Your task to perform on an android device: install app "HBO Max: Stream TV & Movies" Image 0: 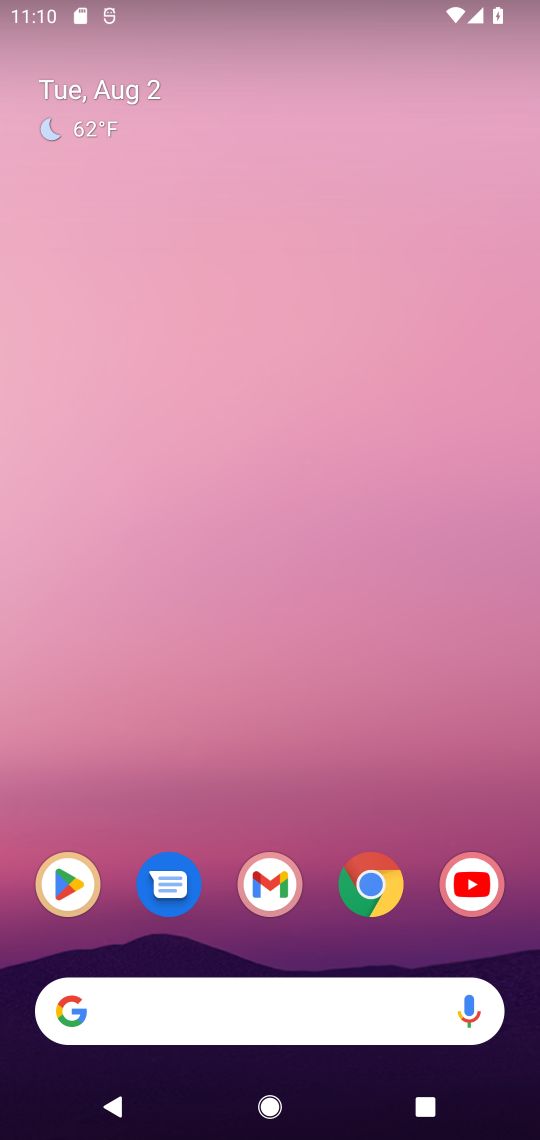
Step 0: click (59, 884)
Your task to perform on an android device: install app "HBO Max: Stream TV & Movies" Image 1: 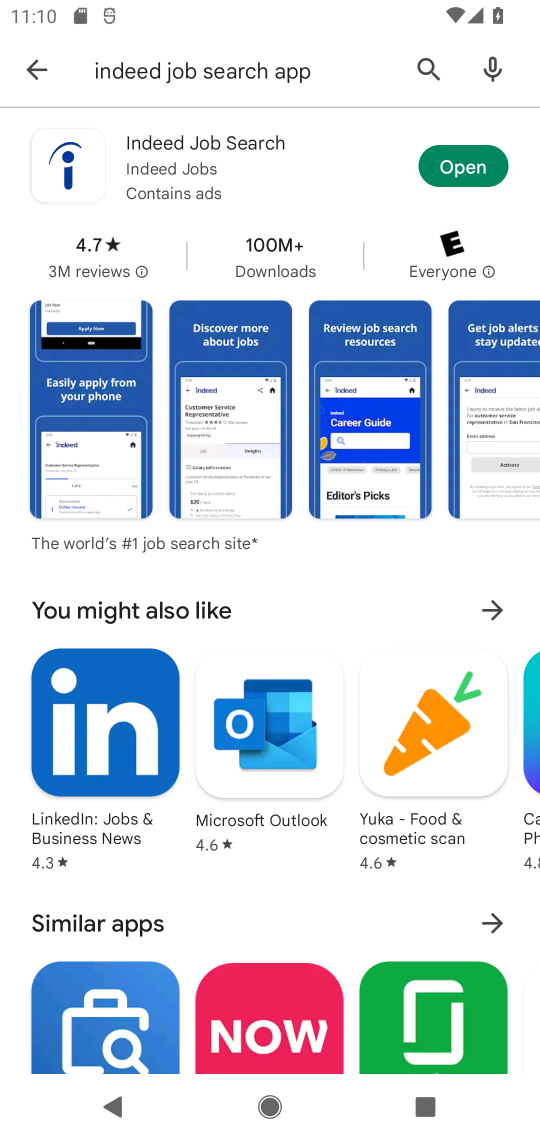
Step 1: click (158, 77)
Your task to perform on an android device: install app "HBO Max: Stream TV & Movies" Image 2: 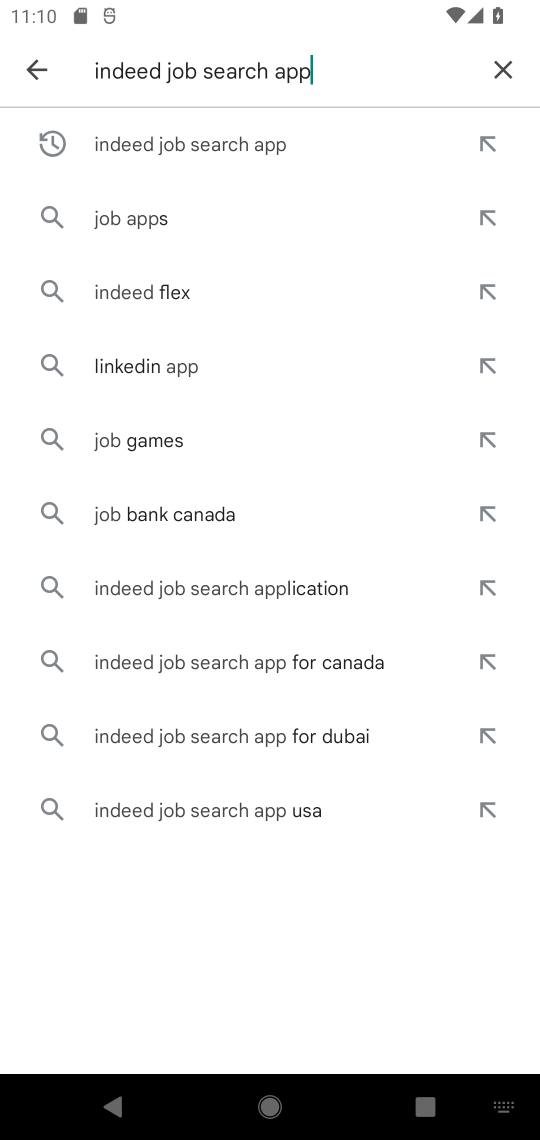
Step 2: click (501, 67)
Your task to perform on an android device: install app "HBO Max: Stream TV & Movies" Image 3: 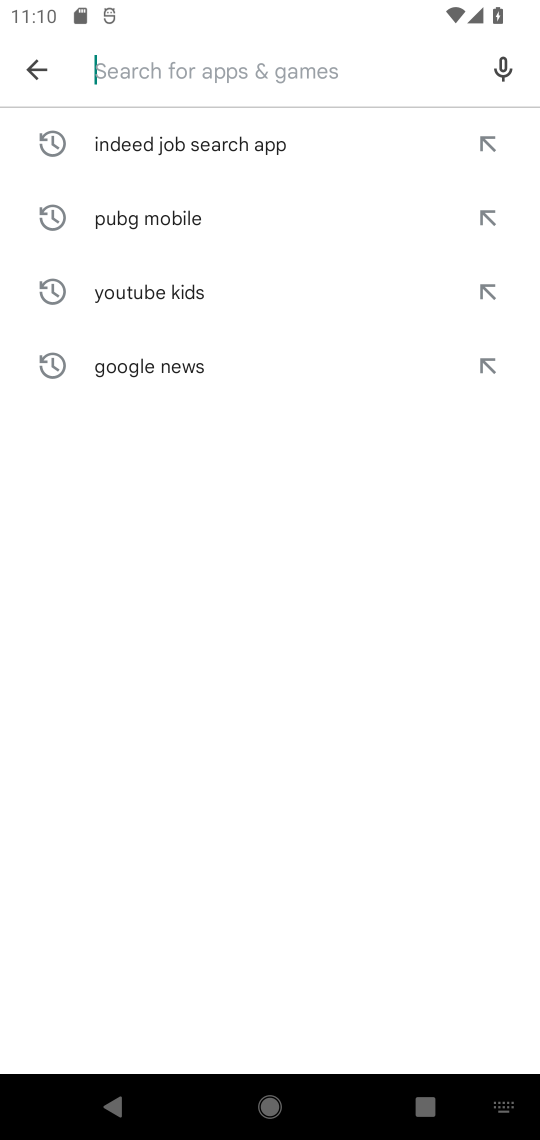
Step 3: type "HBO max"
Your task to perform on an android device: install app "HBO Max: Stream TV & Movies" Image 4: 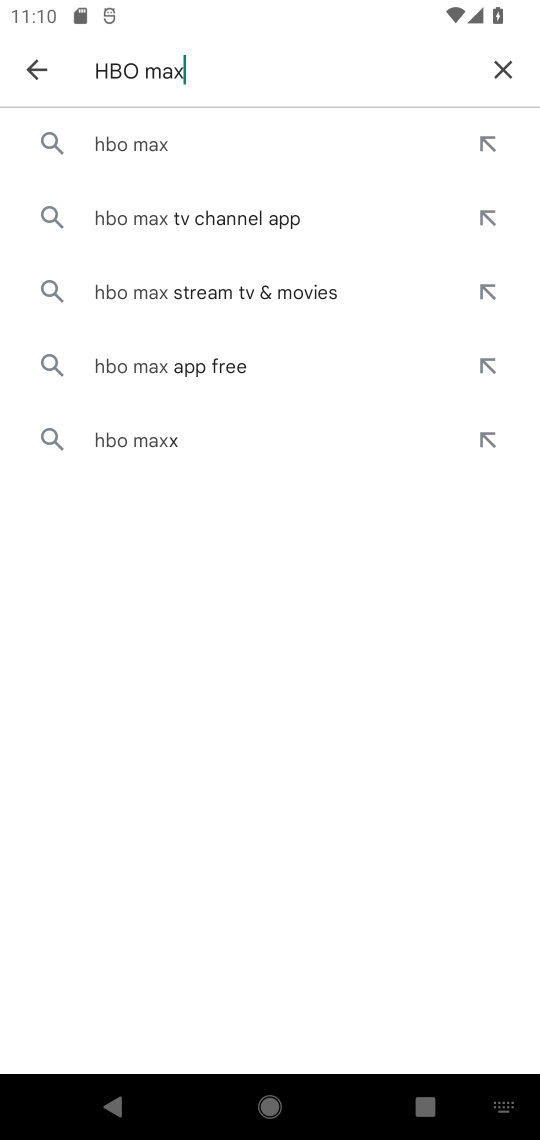
Step 4: click (175, 149)
Your task to perform on an android device: install app "HBO Max: Stream TV & Movies" Image 5: 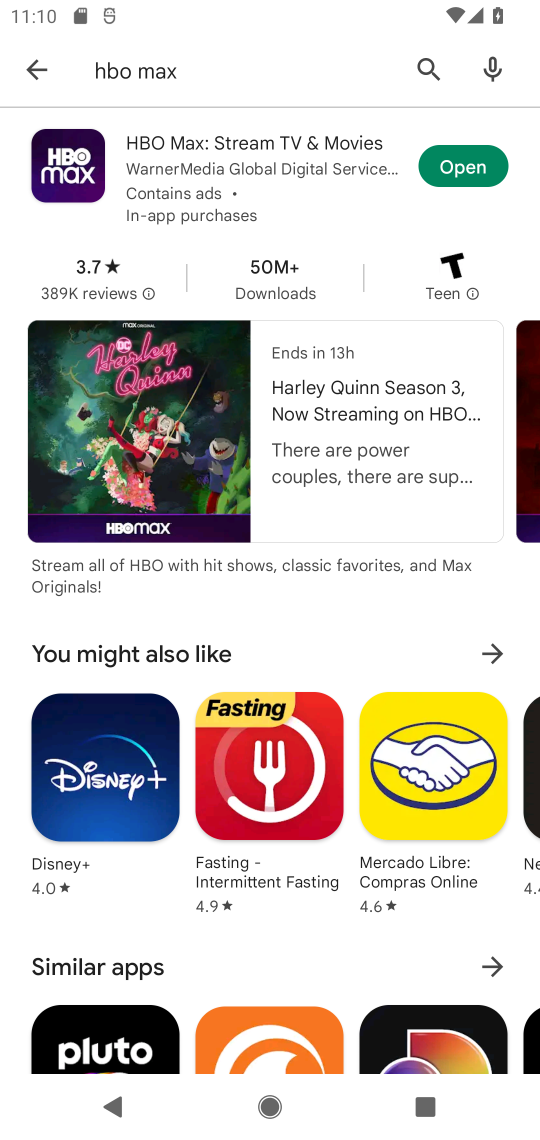
Step 5: task complete